Your task to perform on an android device: Go to Maps Image 0: 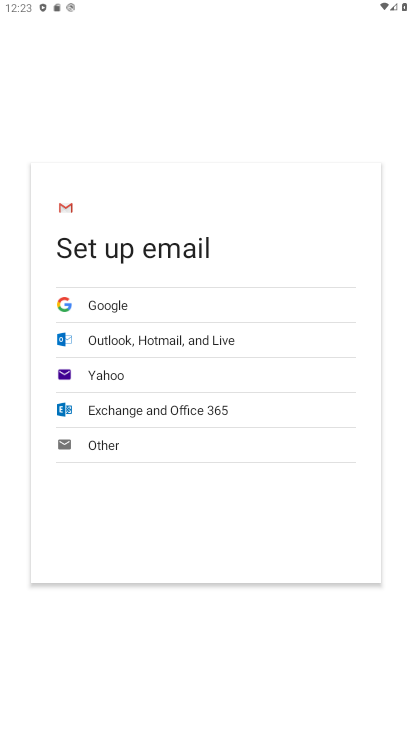
Step 0: drag from (228, 636) to (324, 532)
Your task to perform on an android device: Go to Maps Image 1: 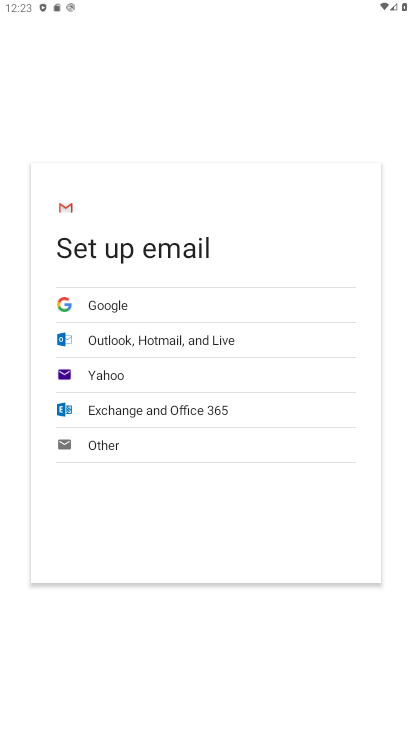
Step 1: press home button
Your task to perform on an android device: Go to Maps Image 2: 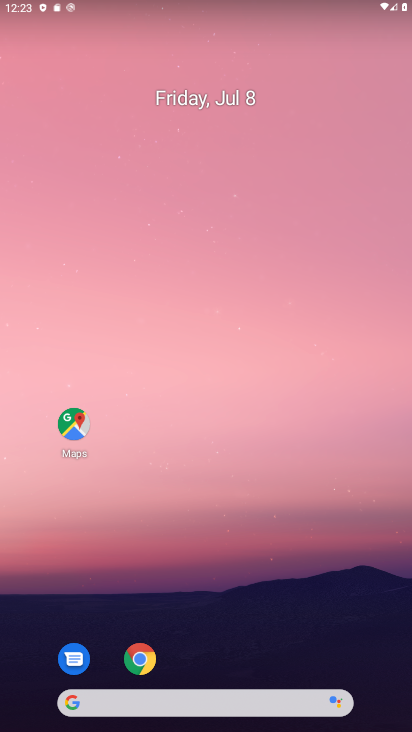
Step 2: drag from (198, 534) to (306, 62)
Your task to perform on an android device: Go to Maps Image 3: 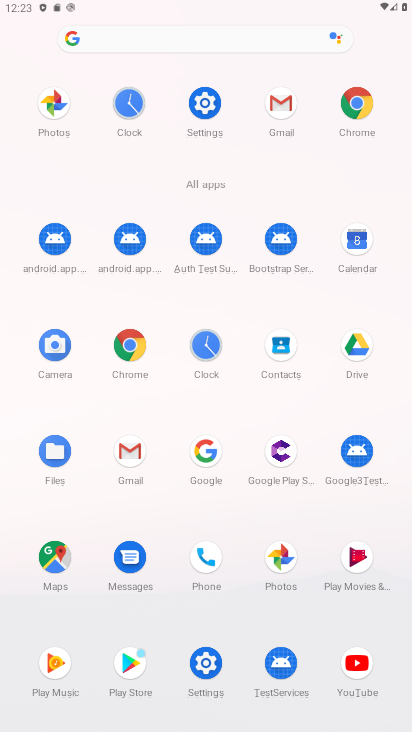
Step 3: click (54, 561)
Your task to perform on an android device: Go to Maps Image 4: 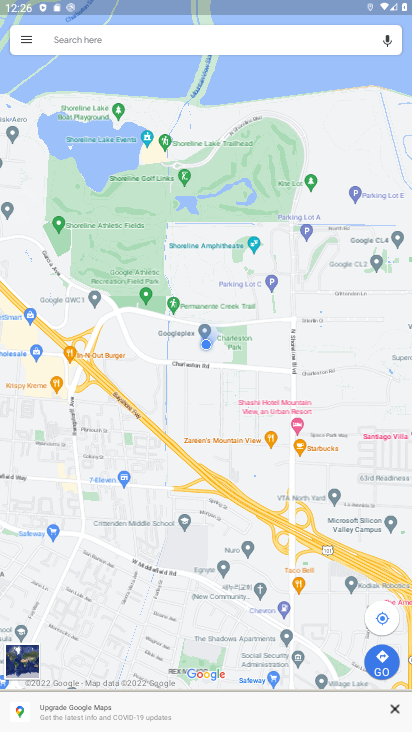
Step 4: task complete